Your task to perform on an android device: turn on data saver in the chrome app Image 0: 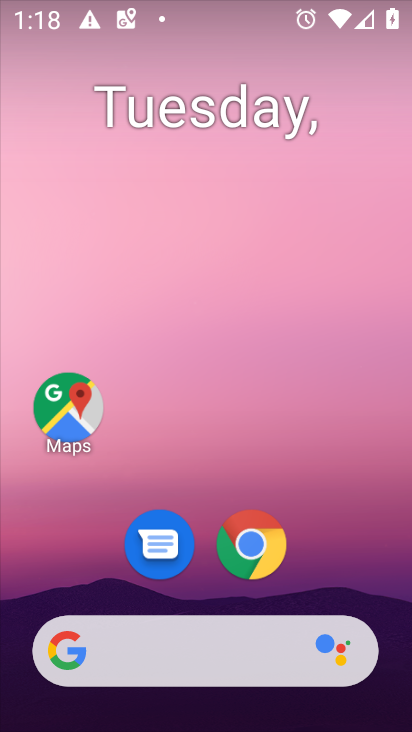
Step 0: drag from (348, 554) to (286, 84)
Your task to perform on an android device: turn on data saver in the chrome app Image 1: 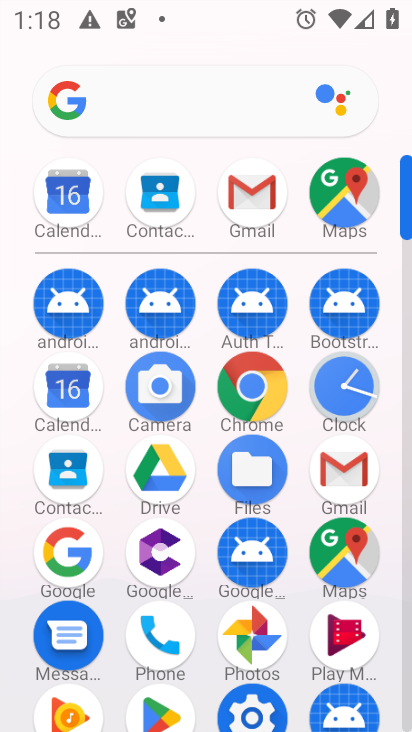
Step 1: click (250, 391)
Your task to perform on an android device: turn on data saver in the chrome app Image 2: 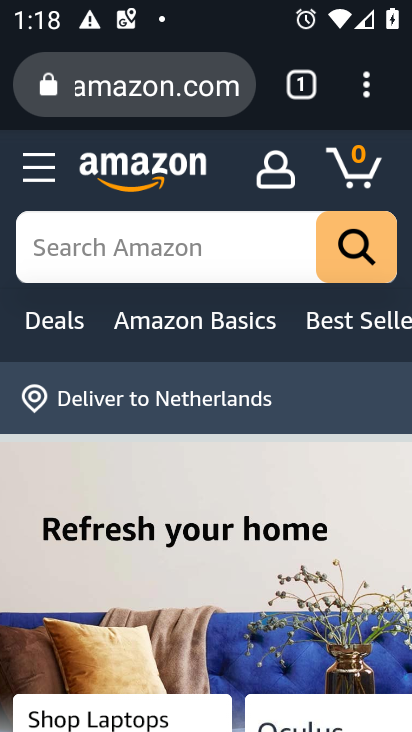
Step 2: drag from (367, 64) to (138, 601)
Your task to perform on an android device: turn on data saver in the chrome app Image 3: 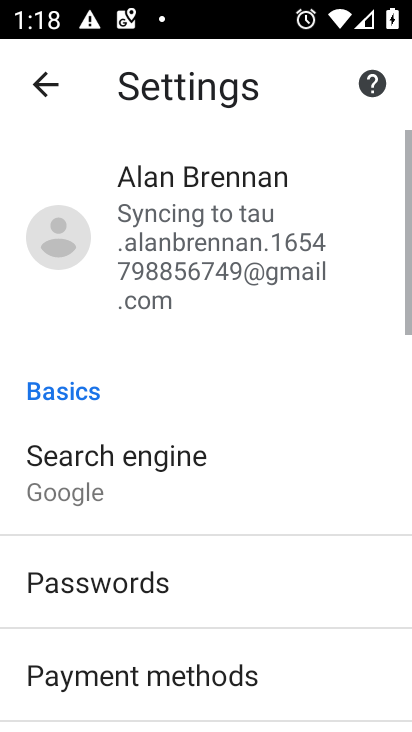
Step 3: drag from (243, 602) to (334, 7)
Your task to perform on an android device: turn on data saver in the chrome app Image 4: 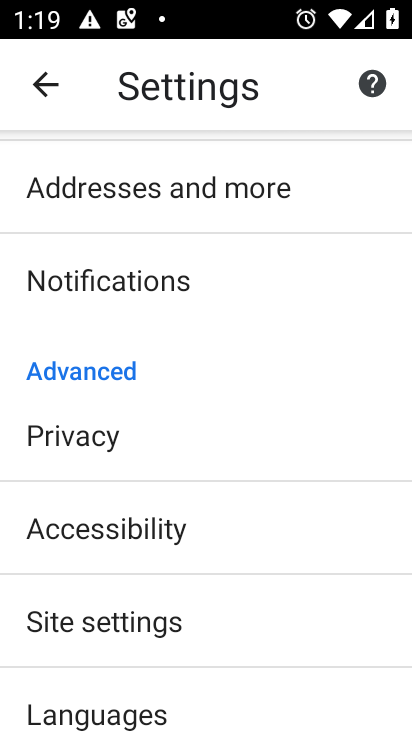
Step 4: drag from (264, 579) to (355, 51)
Your task to perform on an android device: turn on data saver in the chrome app Image 5: 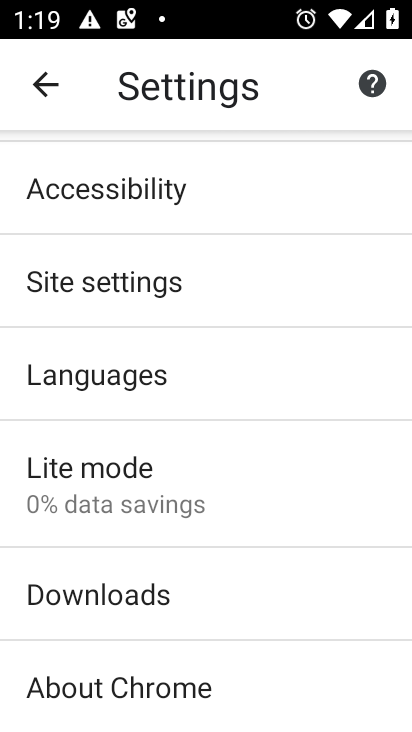
Step 5: click (152, 467)
Your task to perform on an android device: turn on data saver in the chrome app Image 6: 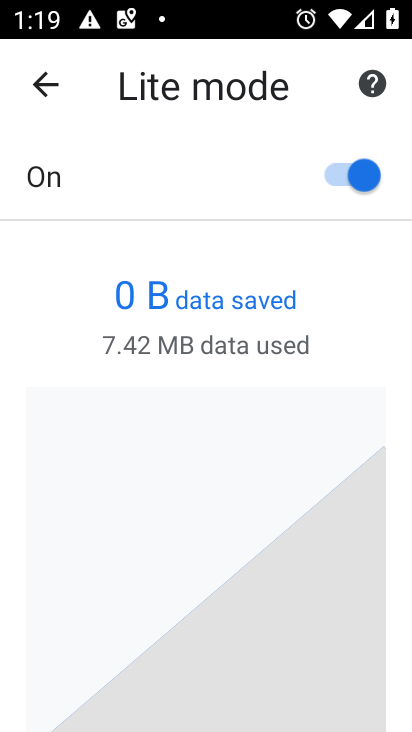
Step 6: task complete